Your task to perform on an android device: see sites visited before in the chrome app Image 0: 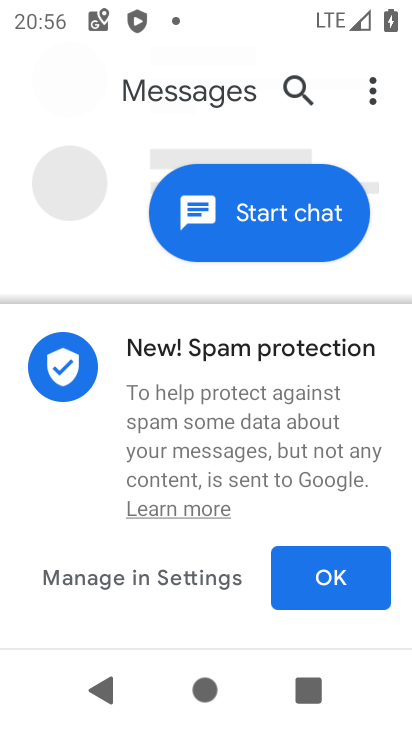
Step 0: press home button
Your task to perform on an android device: see sites visited before in the chrome app Image 1: 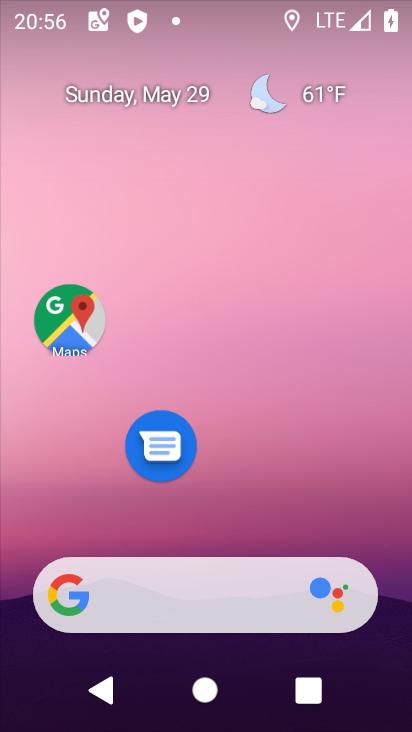
Step 1: drag from (248, 503) to (259, 140)
Your task to perform on an android device: see sites visited before in the chrome app Image 2: 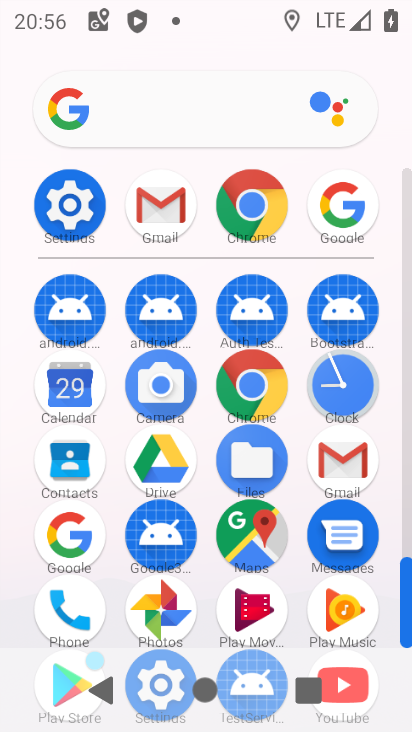
Step 2: click (262, 209)
Your task to perform on an android device: see sites visited before in the chrome app Image 3: 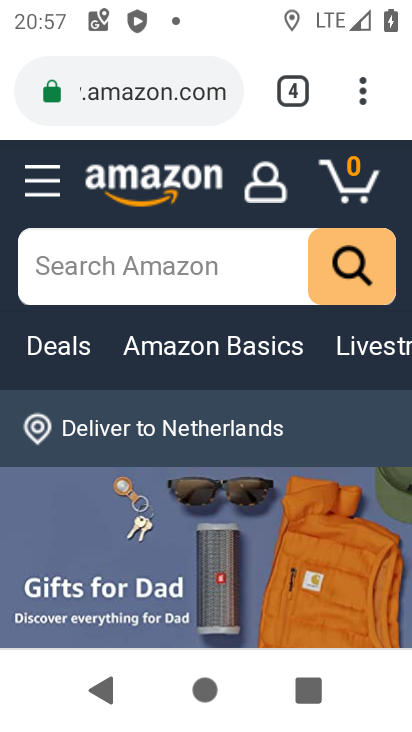
Step 3: task complete